Your task to perform on an android device: Show me the alarms in the clock app Image 0: 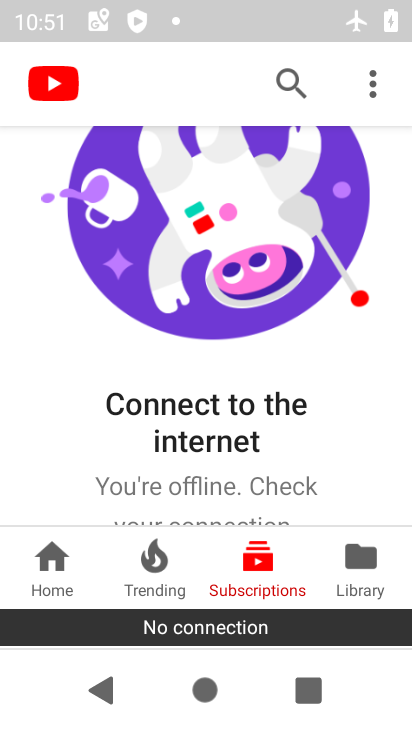
Step 0: press back button
Your task to perform on an android device: Show me the alarms in the clock app Image 1: 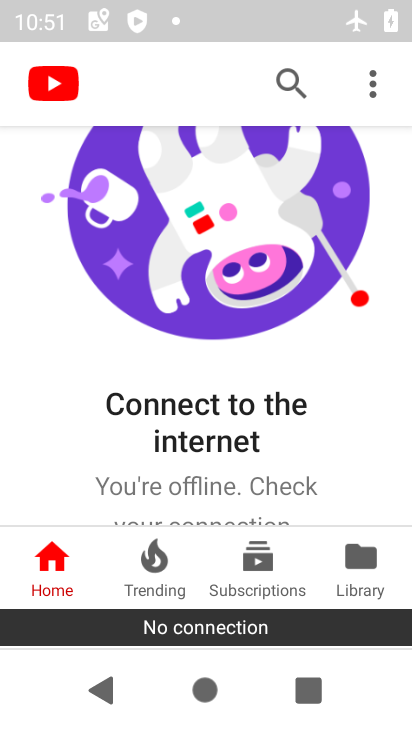
Step 1: press home button
Your task to perform on an android device: Show me the alarms in the clock app Image 2: 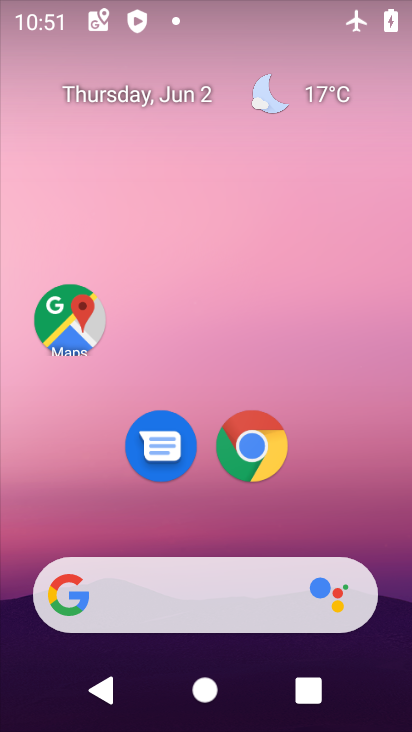
Step 2: drag from (370, 521) to (364, 128)
Your task to perform on an android device: Show me the alarms in the clock app Image 3: 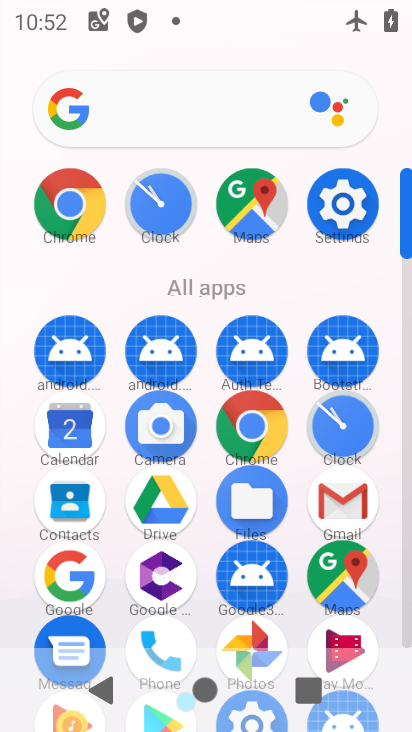
Step 3: click (346, 438)
Your task to perform on an android device: Show me the alarms in the clock app Image 4: 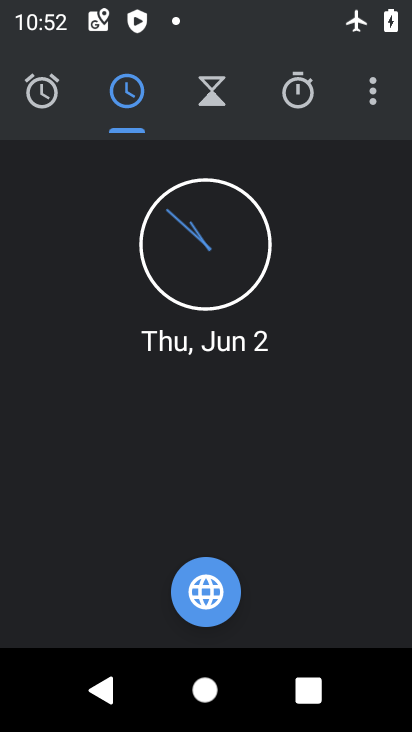
Step 4: click (38, 102)
Your task to perform on an android device: Show me the alarms in the clock app Image 5: 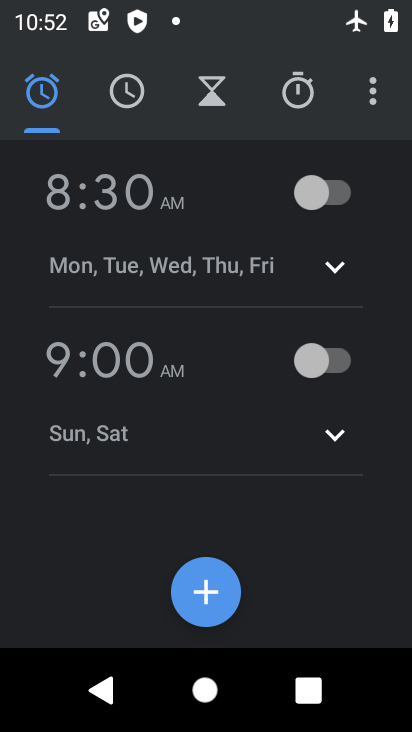
Step 5: task complete